Your task to perform on an android device: Go to Yahoo.com Image 0: 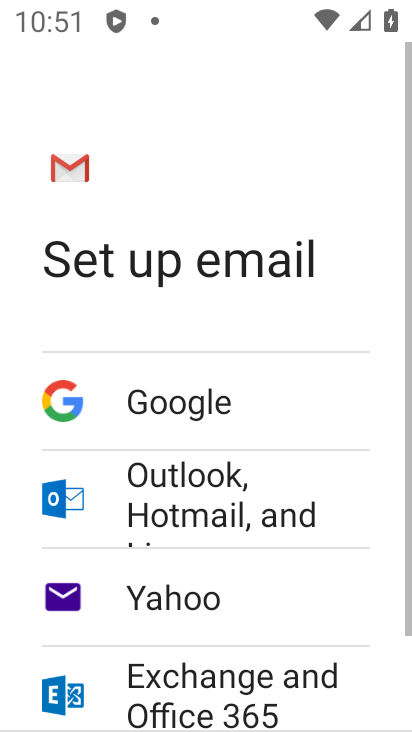
Step 0: press home button
Your task to perform on an android device: Go to Yahoo.com Image 1: 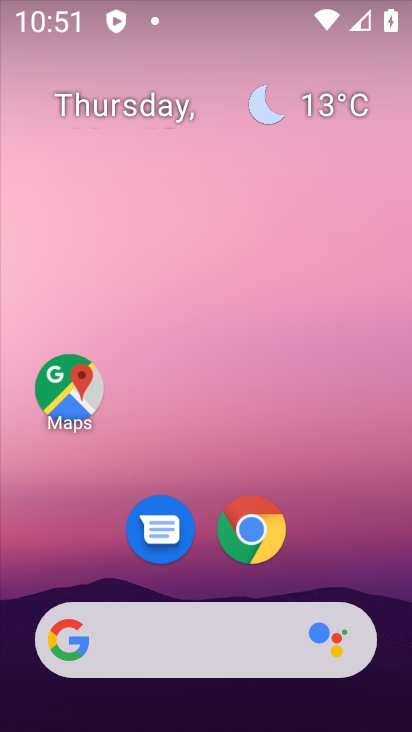
Step 1: click (242, 529)
Your task to perform on an android device: Go to Yahoo.com Image 2: 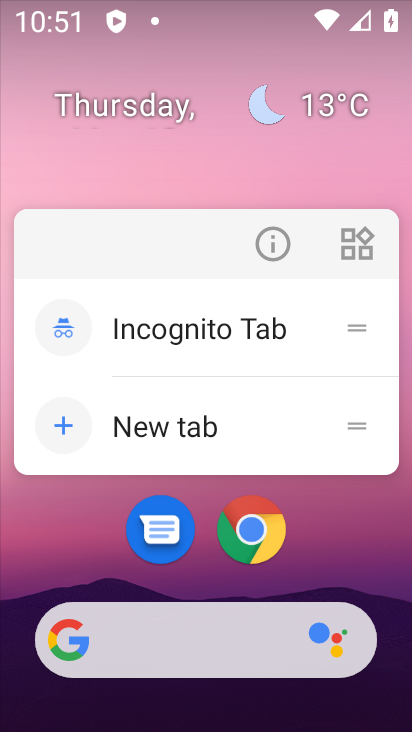
Step 2: click (240, 519)
Your task to perform on an android device: Go to Yahoo.com Image 3: 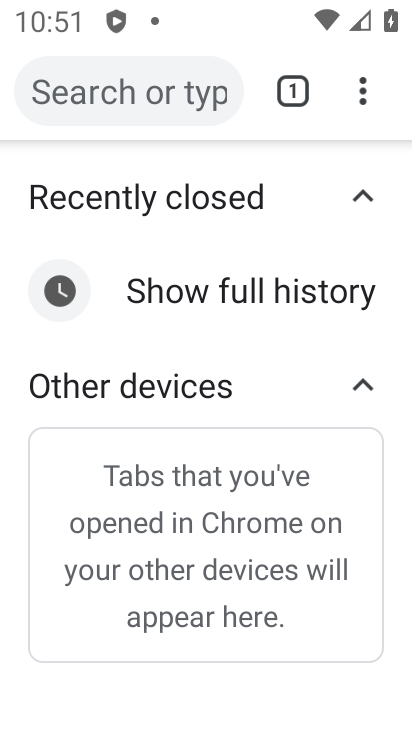
Step 3: click (151, 108)
Your task to perform on an android device: Go to Yahoo.com Image 4: 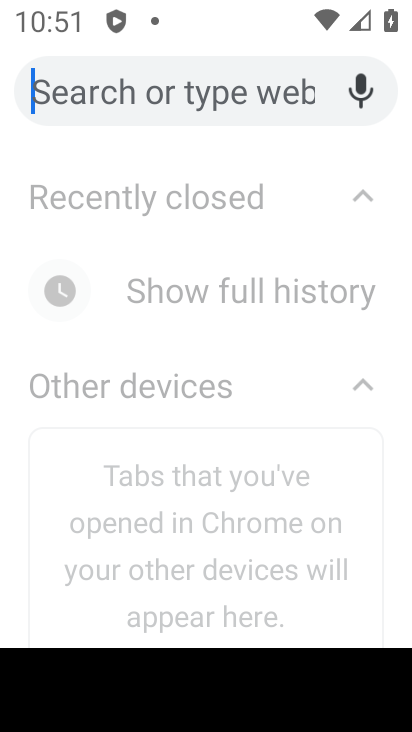
Step 4: type "yahoo.com"
Your task to perform on an android device: Go to Yahoo.com Image 5: 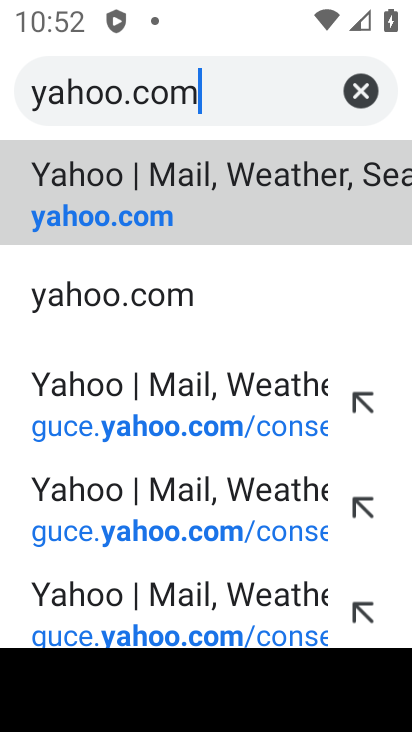
Step 5: click (130, 179)
Your task to perform on an android device: Go to Yahoo.com Image 6: 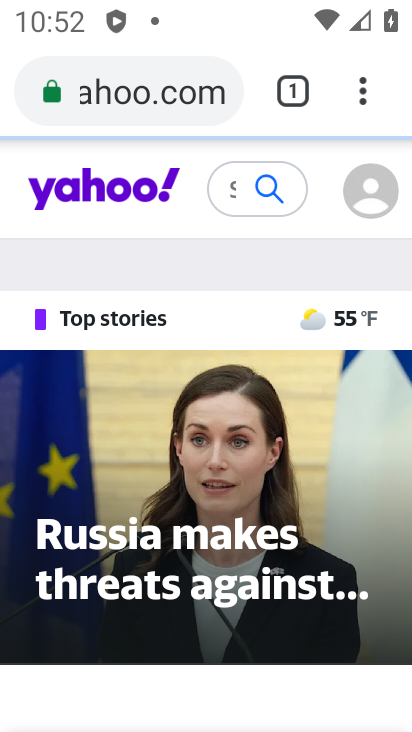
Step 6: click (45, 199)
Your task to perform on an android device: Go to Yahoo.com Image 7: 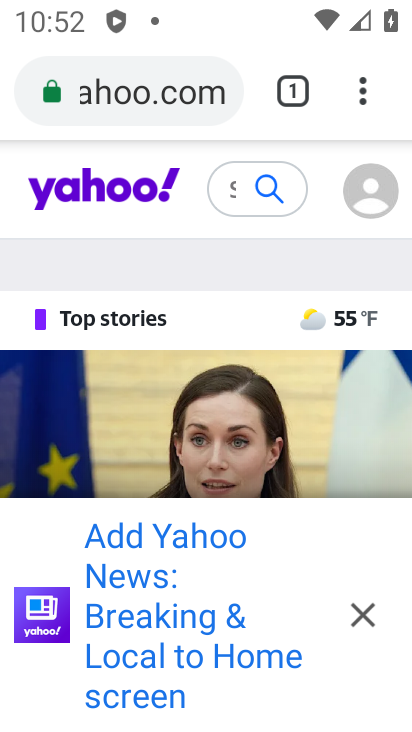
Step 7: task complete